Your task to perform on an android device: turn off javascript in the chrome app Image 0: 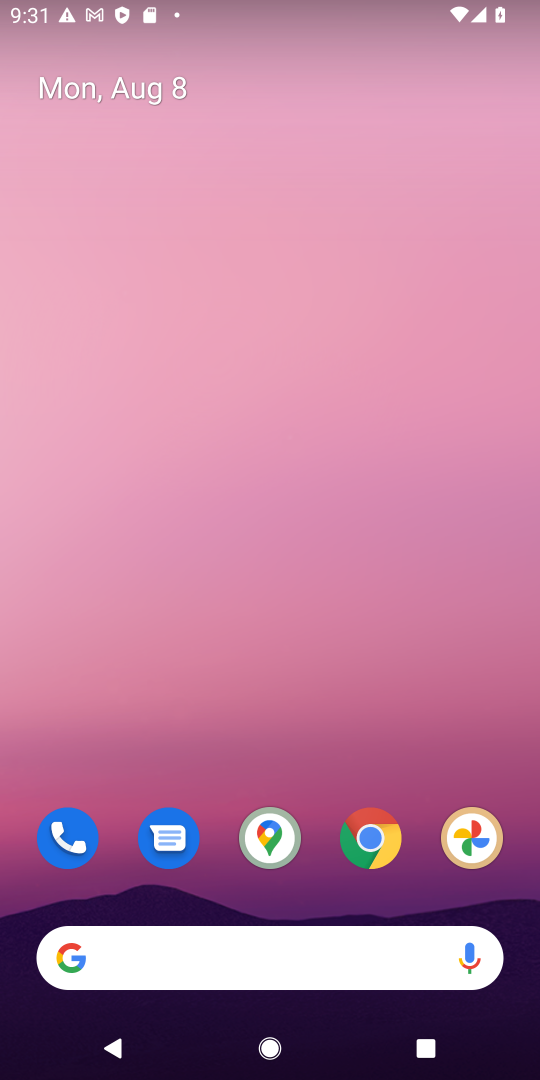
Step 0: drag from (319, 671) to (354, 6)
Your task to perform on an android device: turn off javascript in the chrome app Image 1: 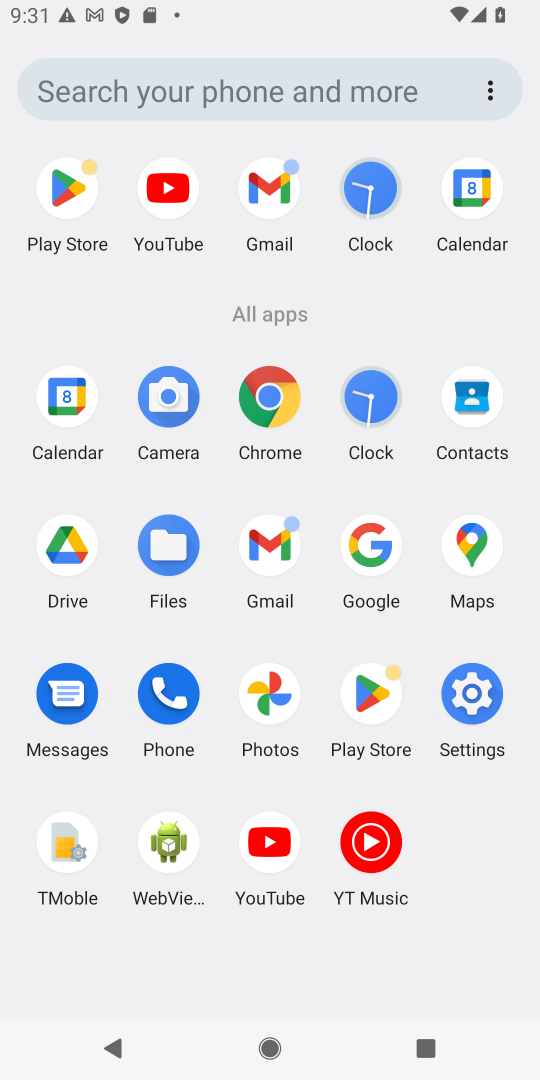
Step 1: click (279, 396)
Your task to perform on an android device: turn off javascript in the chrome app Image 2: 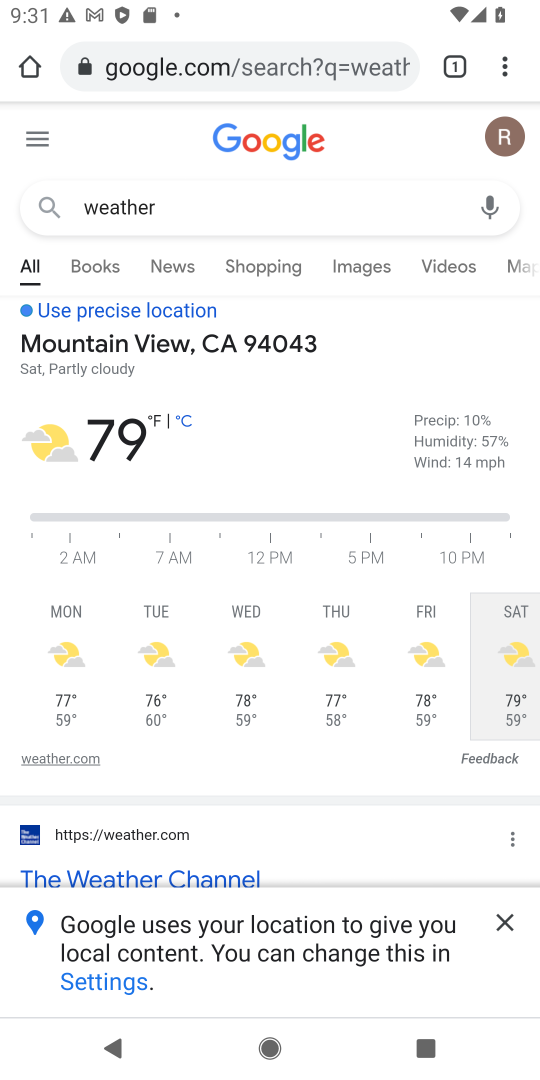
Step 2: drag from (508, 74) to (331, 775)
Your task to perform on an android device: turn off javascript in the chrome app Image 3: 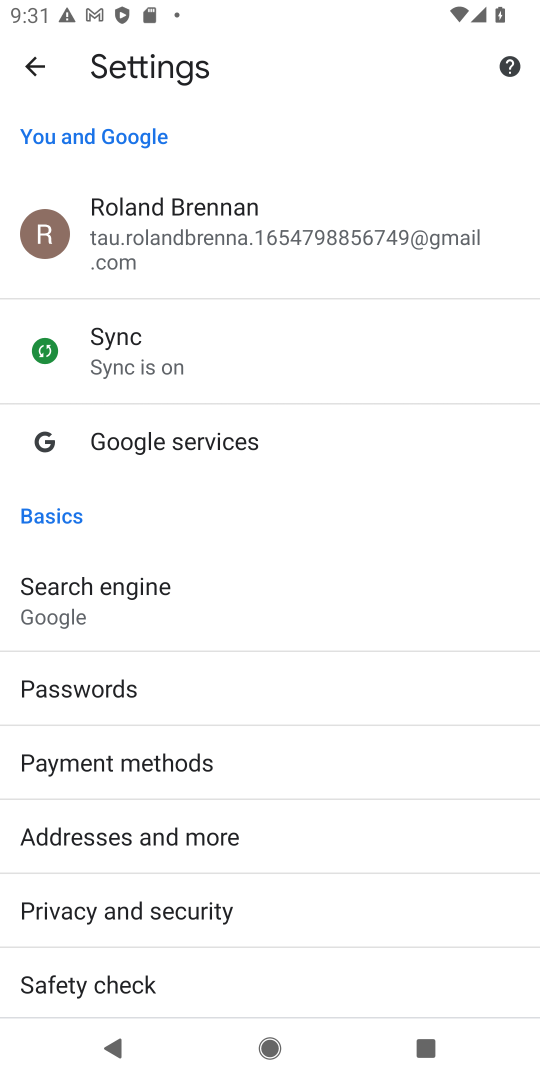
Step 3: drag from (281, 818) to (405, 132)
Your task to perform on an android device: turn off javascript in the chrome app Image 4: 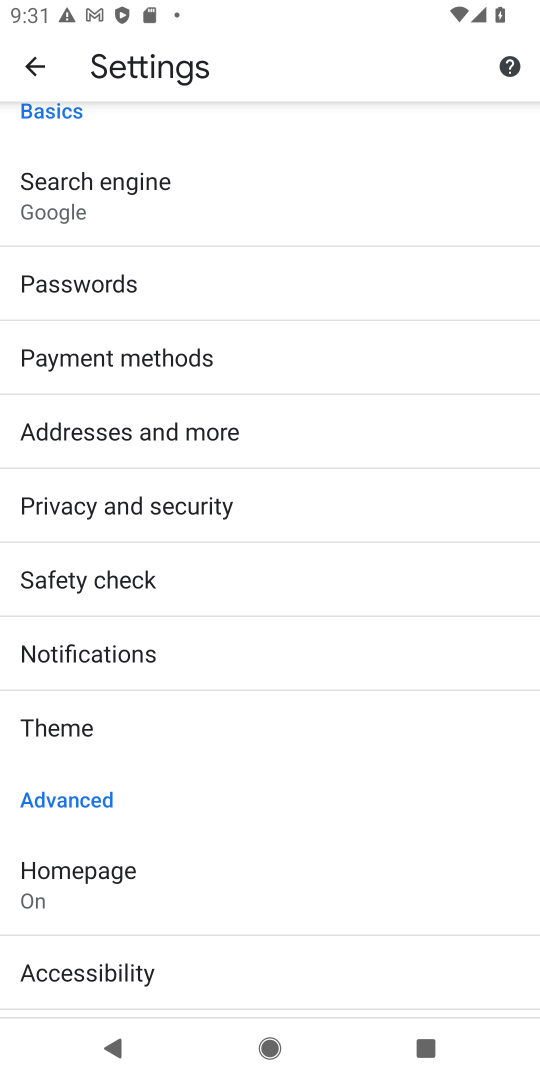
Step 4: drag from (225, 693) to (341, 174)
Your task to perform on an android device: turn off javascript in the chrome app Image 5: 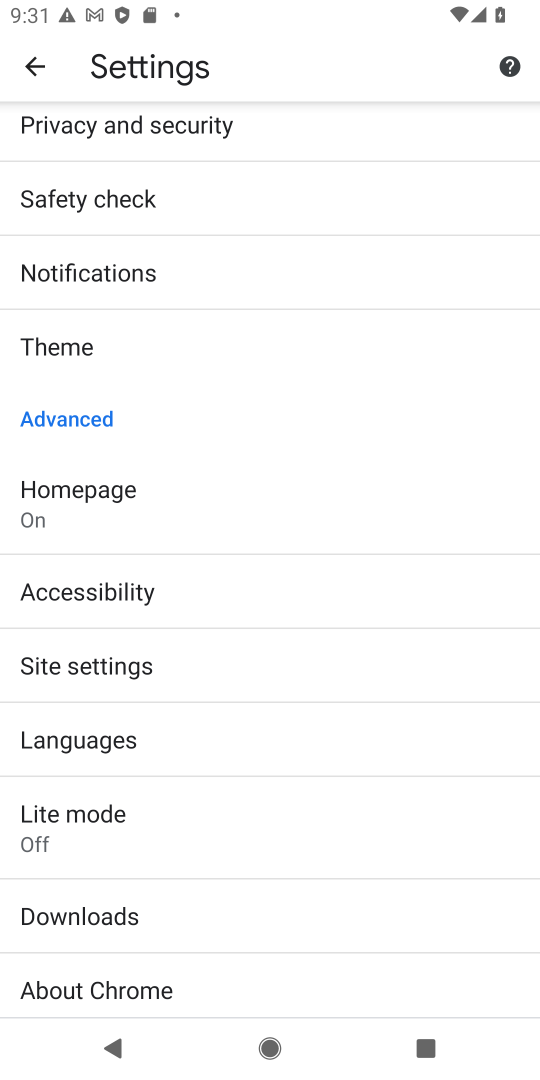
Step 5: click (132, 662)
Your task to perform on an android device: turn off javascript in the chrome app Image 6: 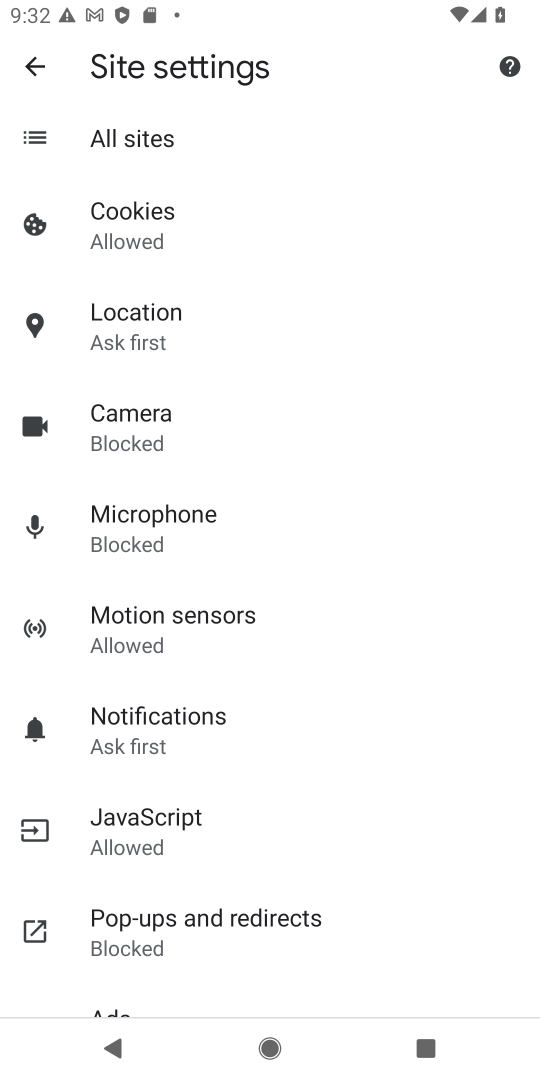
Step 6: click (133, 836)
Your task to perform on an android device: turn off javascript in the chrome app Image 7: 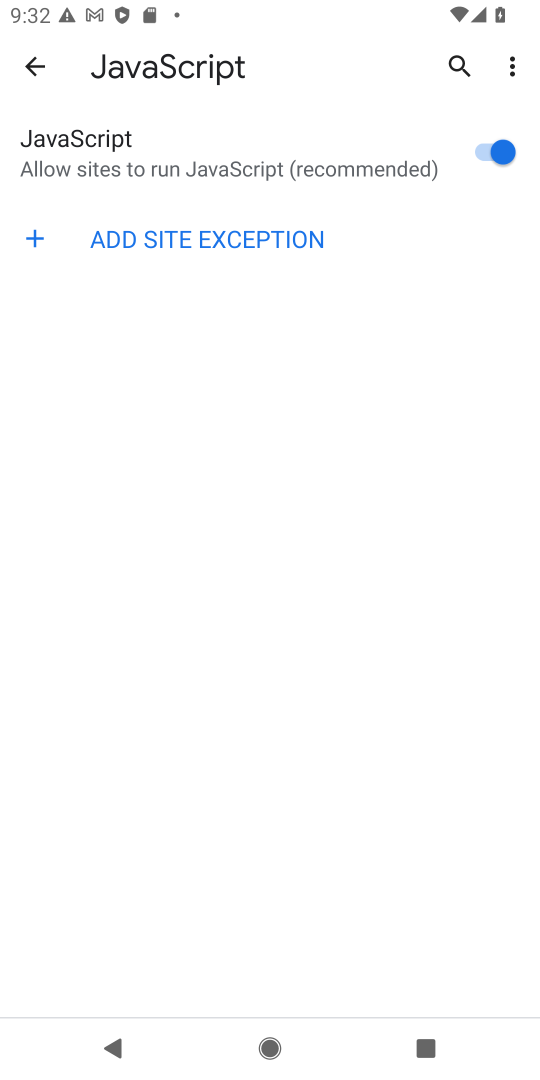
Step 7: click (479, 155)
Your task to perform on an android device: turn off javascript in the chrome app Image 8: 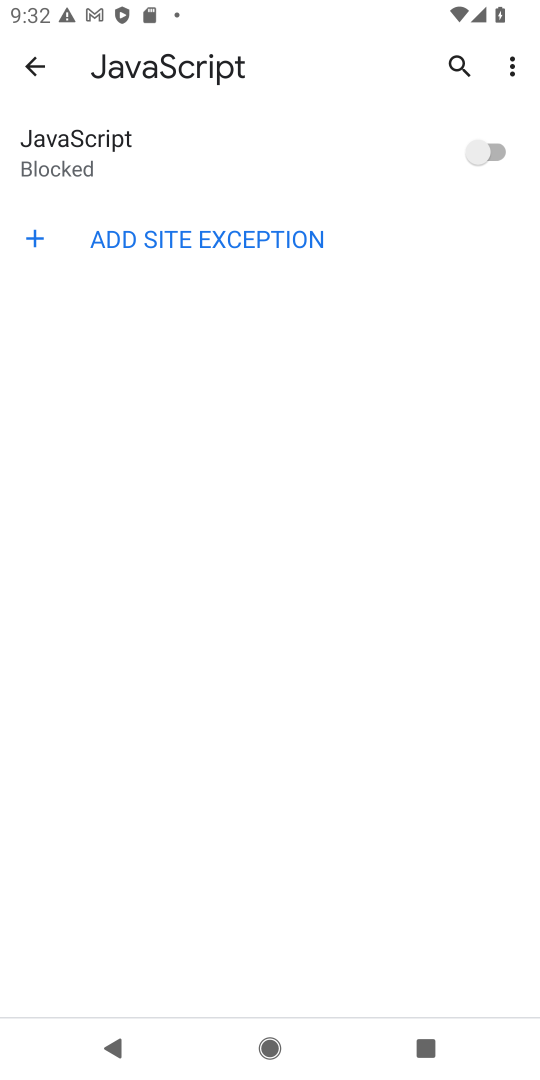
Step 8: task complete